Your task to perform on an android device: open the mobile data screen to see how much data has been used Image 0: 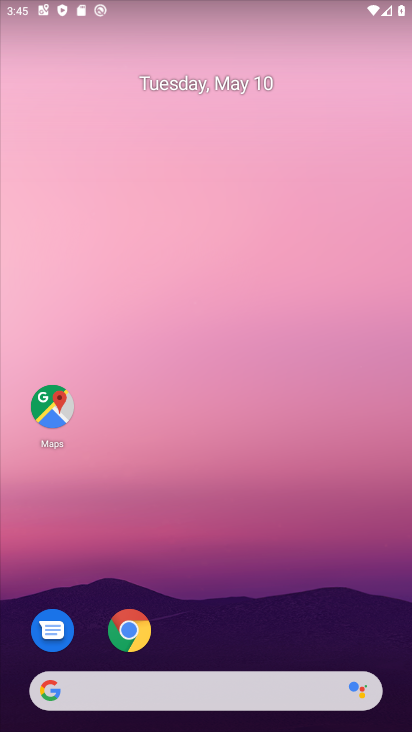
Step 0: drag from (178, 634) to (189, 102)
Your task to perform on an android device: open the mobile data screen to see how much data has been used Image 1: 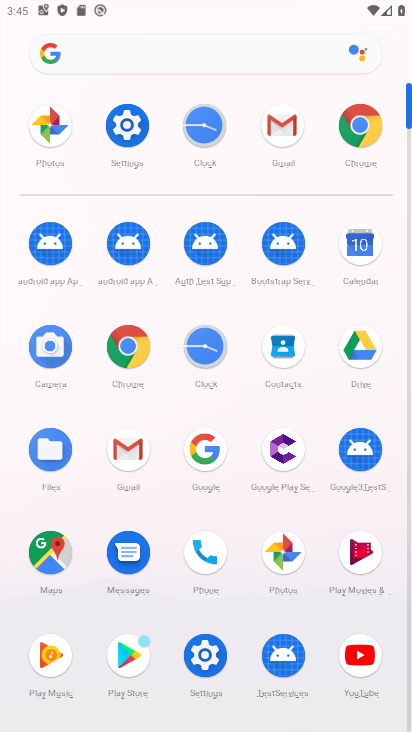
Step 1: click (200, 655)
Your task to perform on an android device: open the mobile data screen to see how much data has been used Image 2: 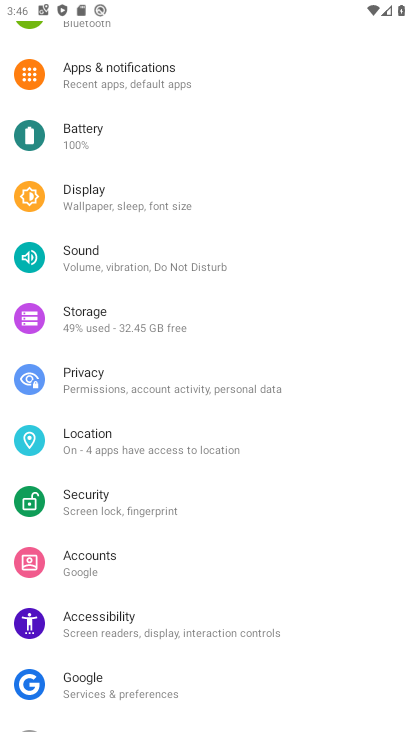
Step 2: click (162, 71)
Your task to perform on an android device: open the mobile data screen to see how much data has been used Image 3: 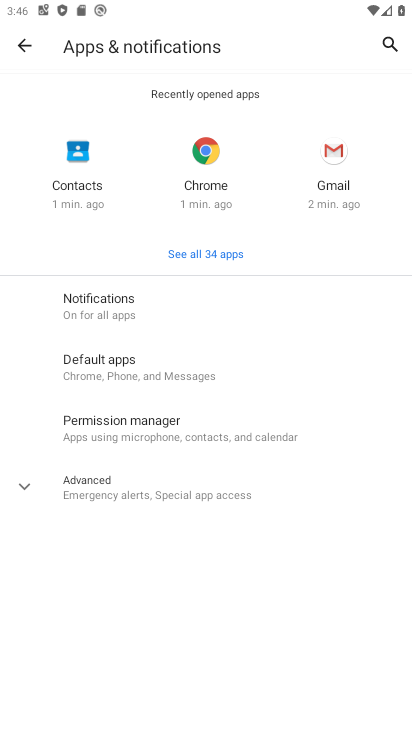
Step 3: click (35, 57)
Your task to perform on an android device: open the mobile data screen to see how much data has been used Image 4: 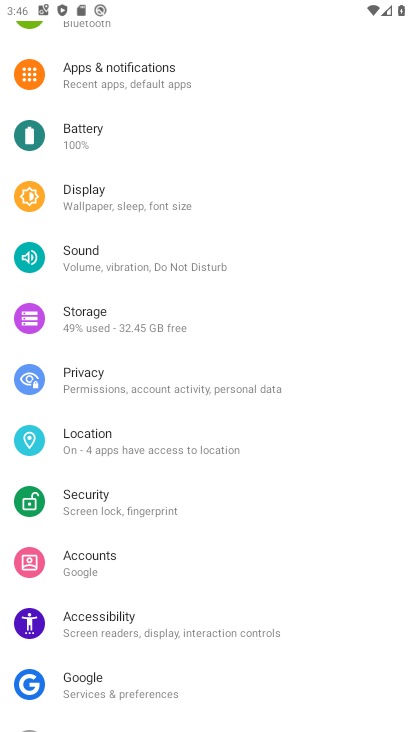
Step 4: drag from (148, 114) to (183, 564)
Your task to perform on an android device: open the mobile data screen to see how much data has been used Image 5: 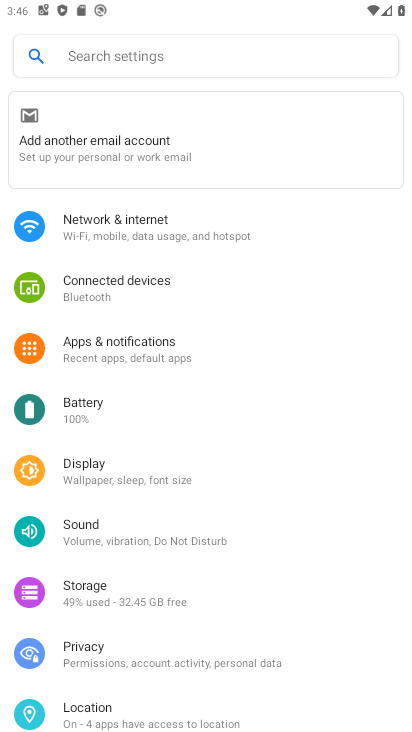
Step 5: click (110, 230)
Your task to perform on an android device: open the mobile data screen to see how much data has been used Image 6: 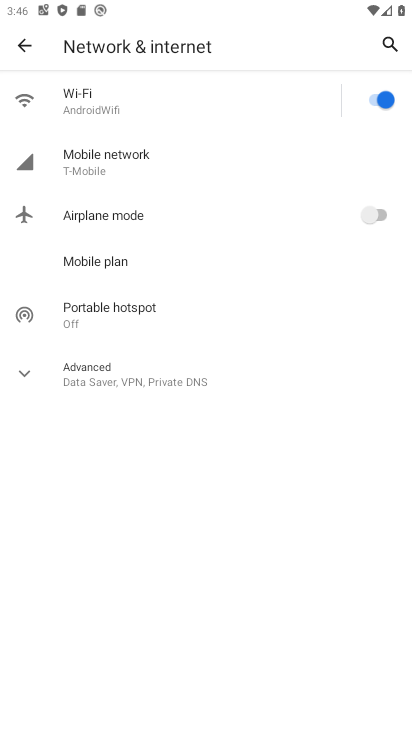
Step 6: click (317, 170)
Your task to perform on an android device: open the mobile data screen to see how much data has been used Image 7: 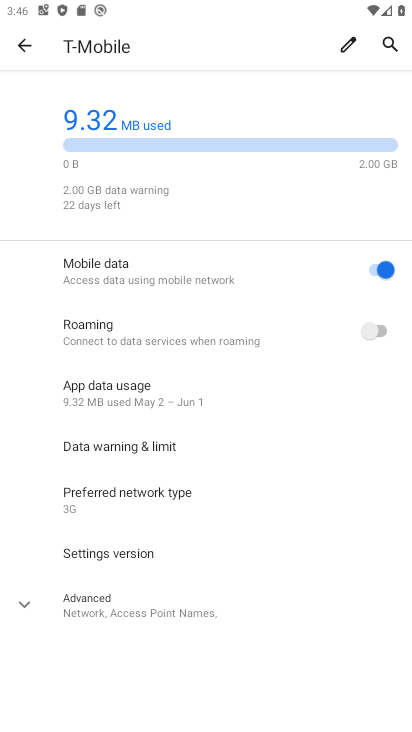
Step 7: task complete